Your task to perform on an android device: Search for vegetarian restaurants on Maps Image 0: 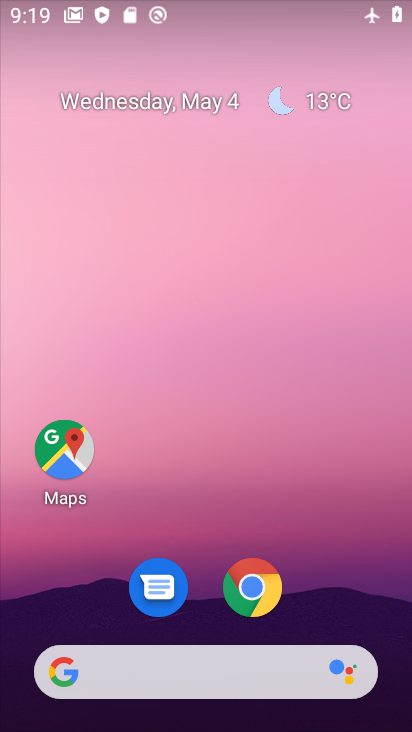
Step 0: click (65, 455)
Your task to perform on an android device: Search for vegetarian restaurants on Maps Image 1: 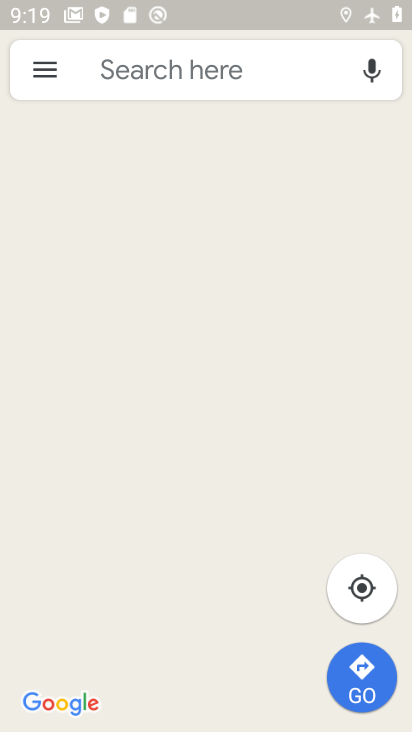
Step 1: click (185, 80)
Your task to perform on an android device: Search for vegetarian restaurants on Maps Image 2: 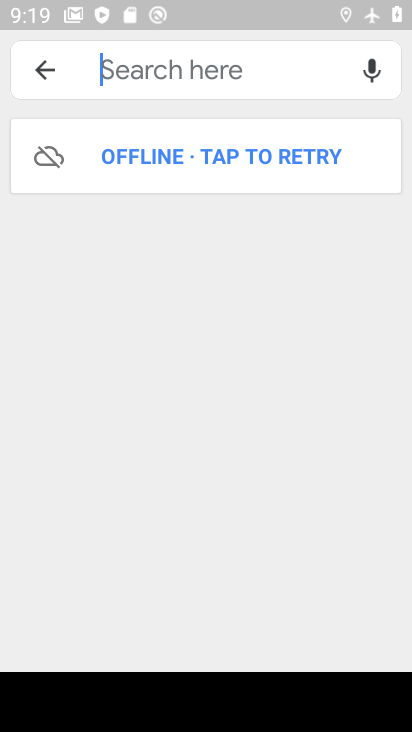
Step 2: type "veg"
Your task to perform on an android device: Search for vegetarian restaurants on Maps Image 3: 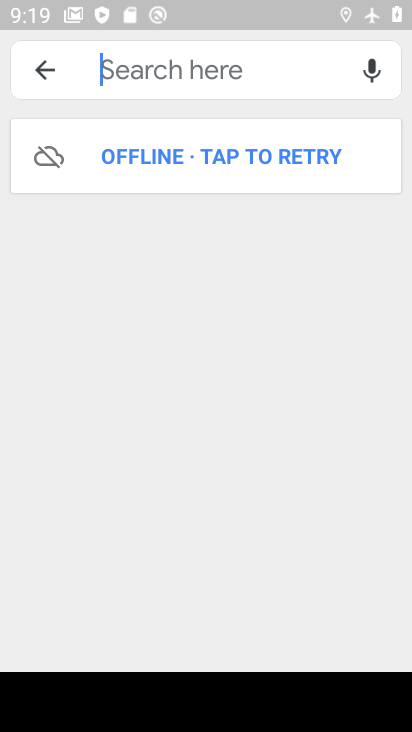
Step 3: click (202, 154)
Your task to perform on an android device: Search for vegetarian restaurants on Maps Image 4: 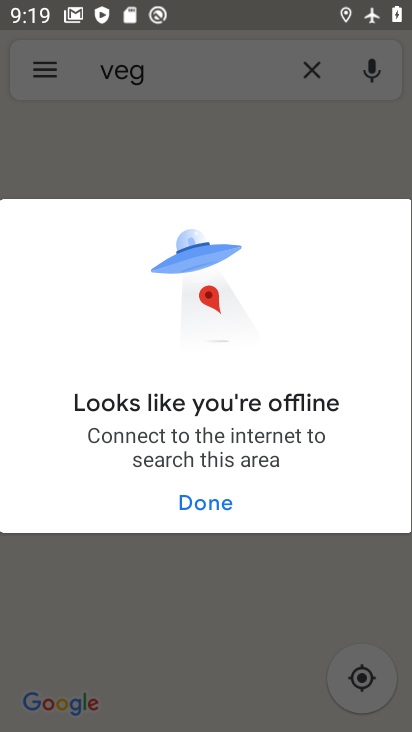
Step 4: task complete